Your task to perform on an android device: Open settings on Google Maps Image 0: 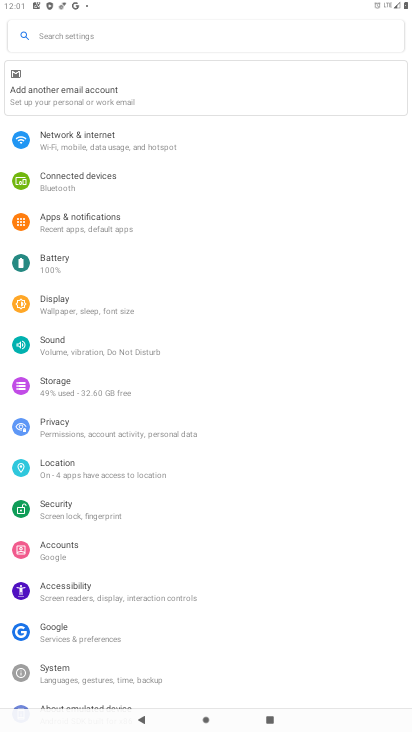
Step 0: press home button
Your task to perform on an android device: Open settings on Google Maps Image 1: 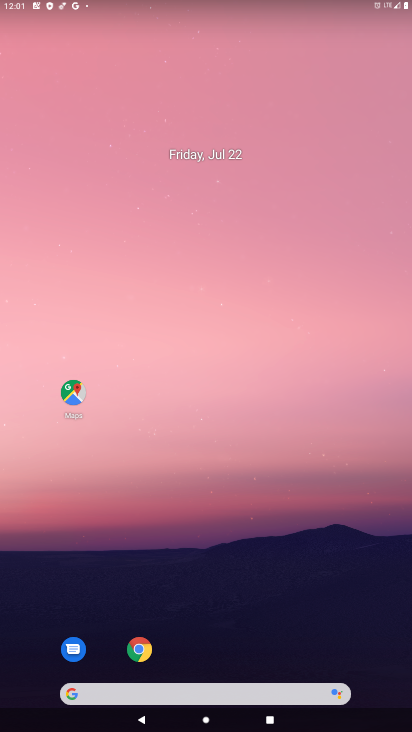
Step 1: click (81, 392)
Your task to perform on an android device: Open settings on Google Maps Image 2: 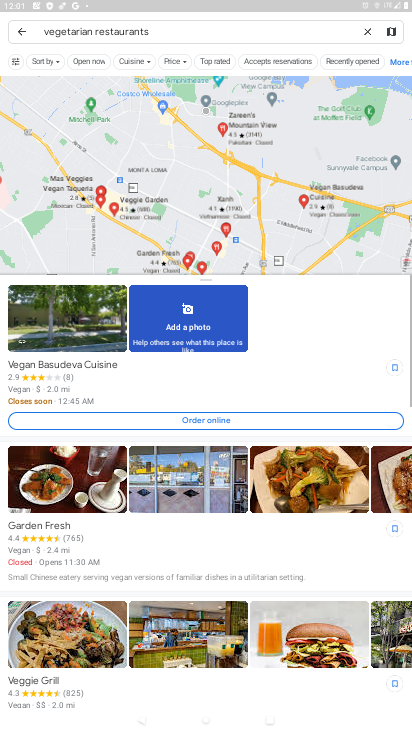
Step 2: click (18, 35)
Your task to perform on an android device: Open settings on Google Maps Image 3: 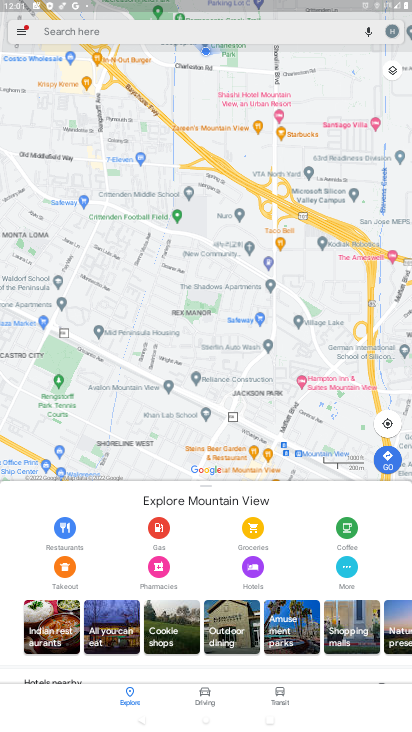
Step 3: click (21, 34)
Your task to perform on an android device: Open settings on Google Maps Image 4: 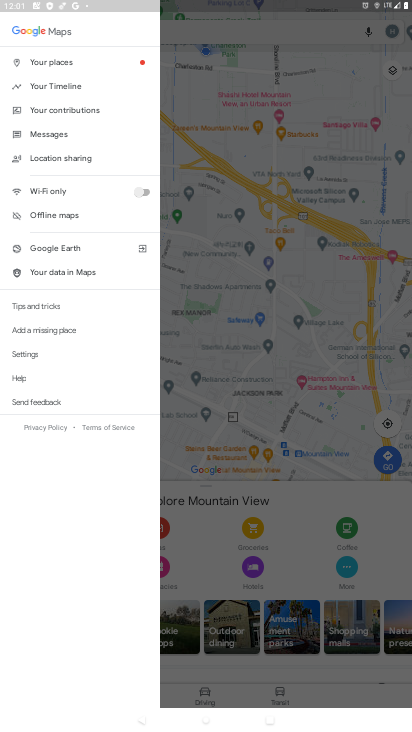
Step 4: click (50, 354)
Your task to perform on an android device: Open settings on Google Maps Image 5: 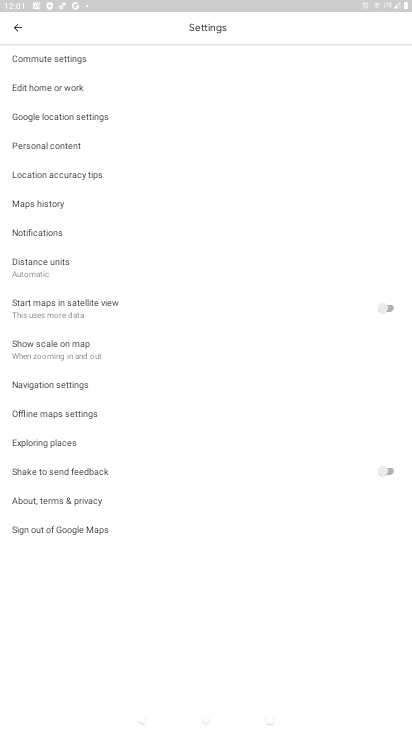
Step 5: task complete